Your task to perform on an android device: Open eBay Image 0: 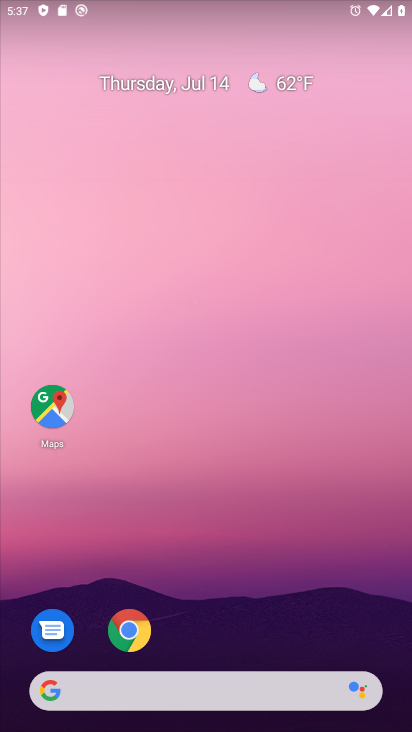
Step 0: click (132, 635)
Your task to perform on an android device: Open eBay Image 1: 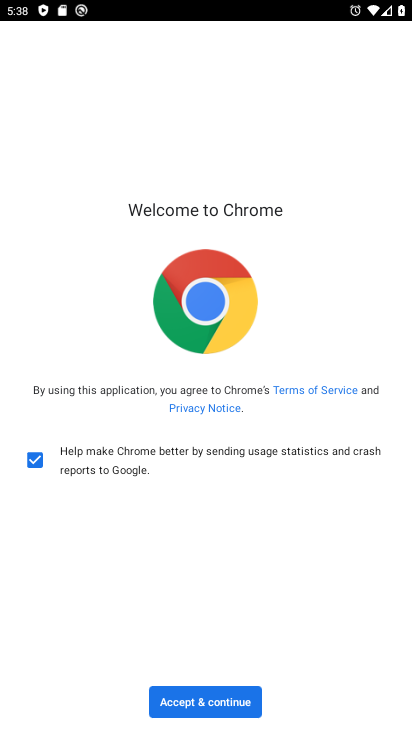
Step 1: click (192, 694)
Your task to perform on an android device: Open eBay Image 2: 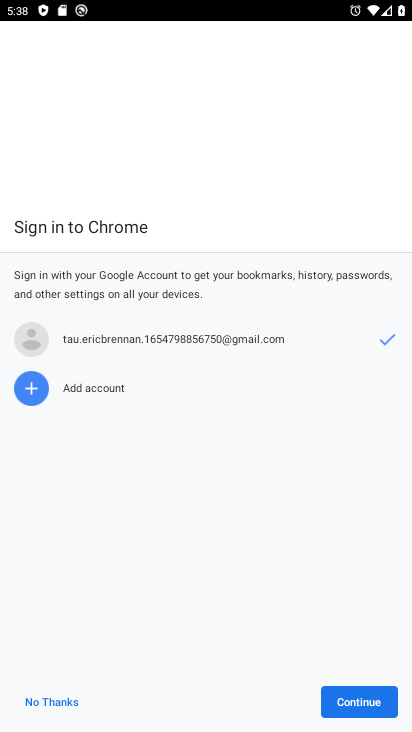
Step 2: click (330, 694)
Your task to perform on an android device: Open eBay Image 3: 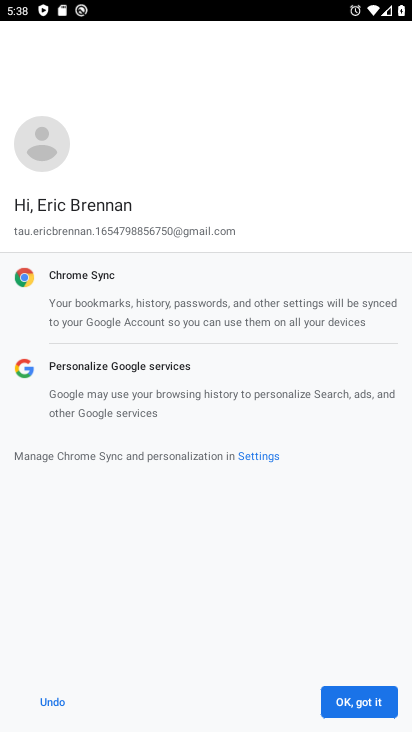
Step 3: click (349, 703)
Your task to perform on an android device: Open eBay Image 4: 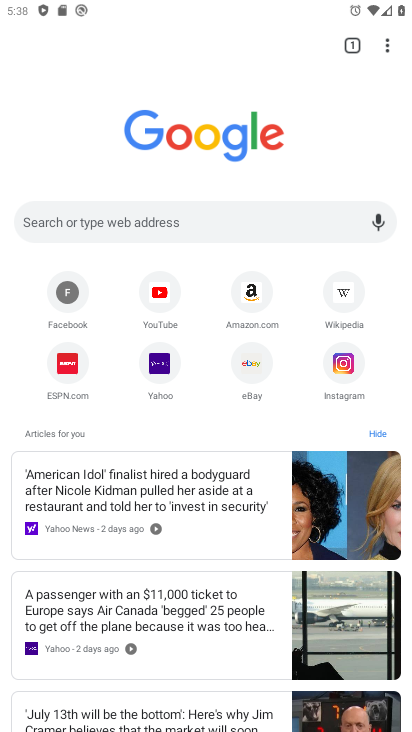
Step 4: click (254, 360)
Your task to perform on an android device: Open eBay Image 5: 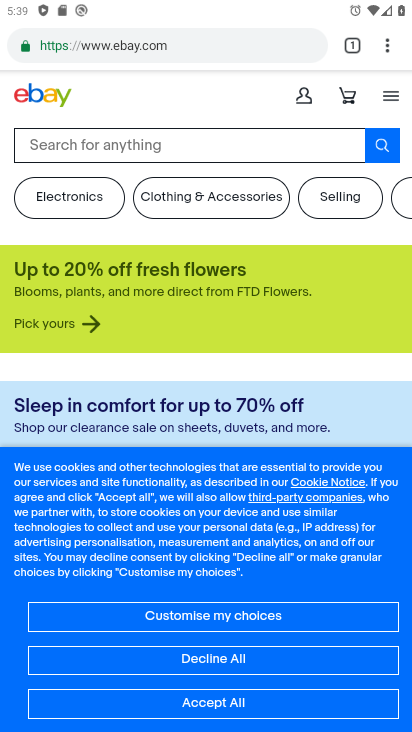
Step 5: task complete